Your task to perform on an android device: allow notifications from all sites in the chrome app Image 0: 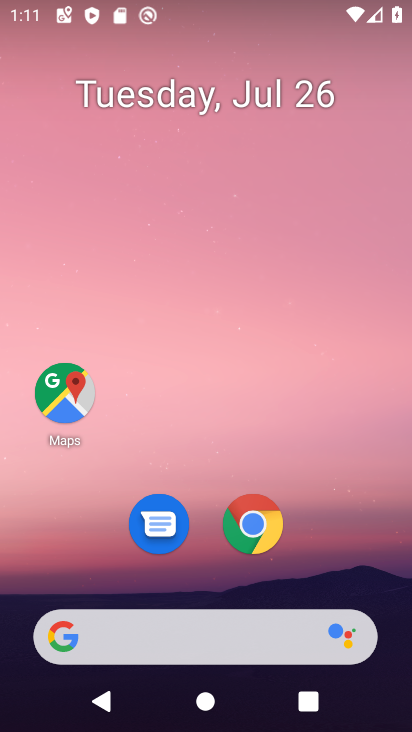
Step 0: click (258, 534)
Your task to perform on an android device: allow notifications from all sites in the chrome app Image 1: 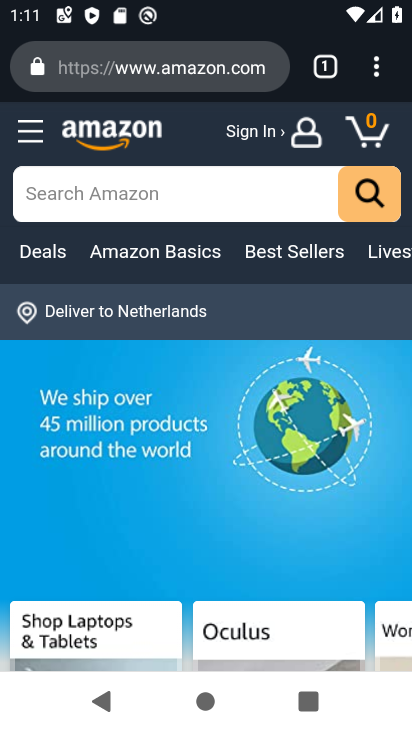
Step 1: click (376, 70)
Your task to perform on an android device: allow notifications from all sites in the chrome app Image 2: 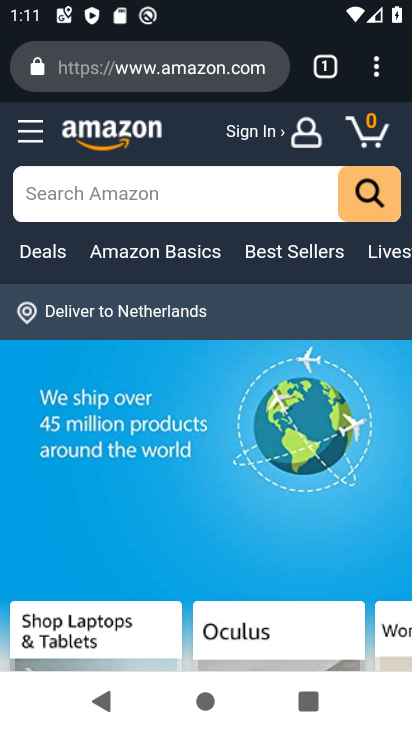
Step 2: click (376, 70)
Your task to perform on an android device: allow notifications from all sites in the chrome app Image 3: 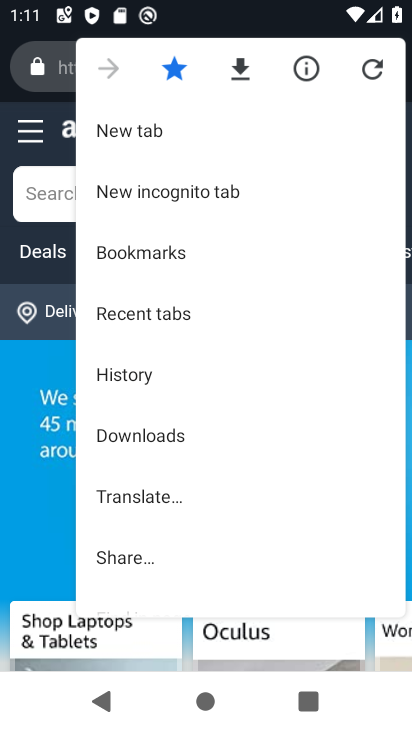
Step 3: drag from (249, 517) to (319, 79)
Your task to perform on an android device: allow notifications from all sites in the chrome app Image 4: 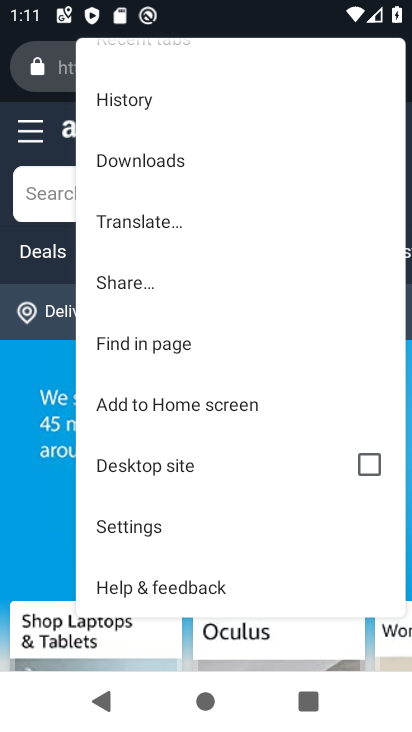
Step 4: click (150, 521)
Your task to perform on an android device: allow notifications from all sites in the chrome app Image 5: 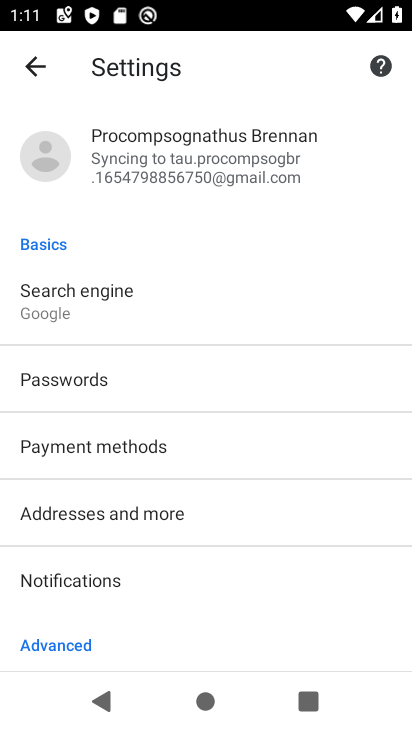
Step 5: click (101, 584)
Your task to perform on an android device: allow notifications from all sites in the chrome app Image 6: 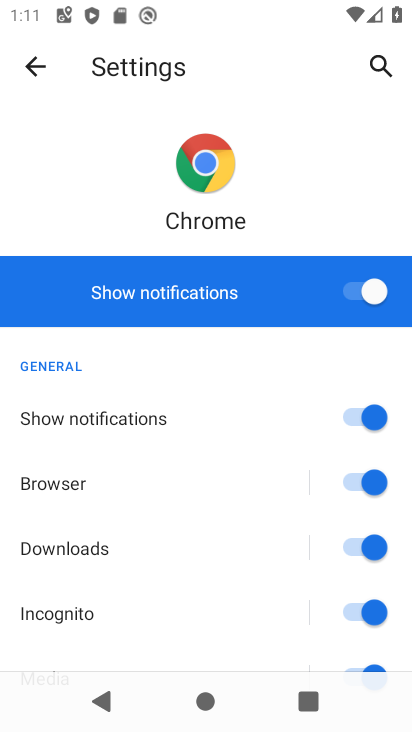
Step 6: task complete